Your task to perform on an android device: clear all cookies in the chrome app Image 0: 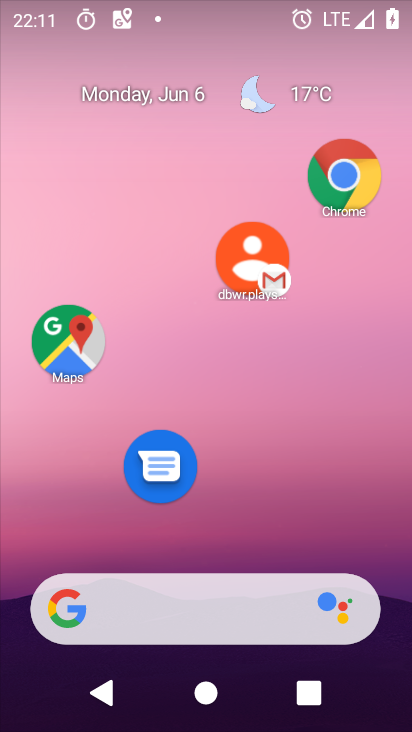
Step 0: click (217, 29)
Your task to perform on an android device: clear all cookies in the chrome app Image 1: 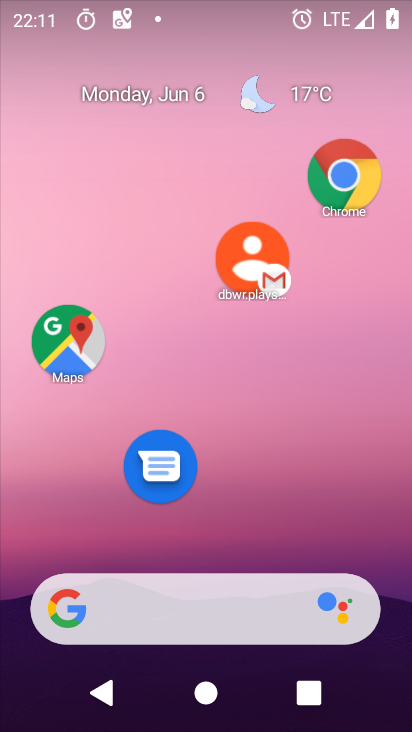
Step 1: drag from (203, 410) to (385, 41)
Your task to perform on an android device: clear all cookies in the chrome app Image 2: 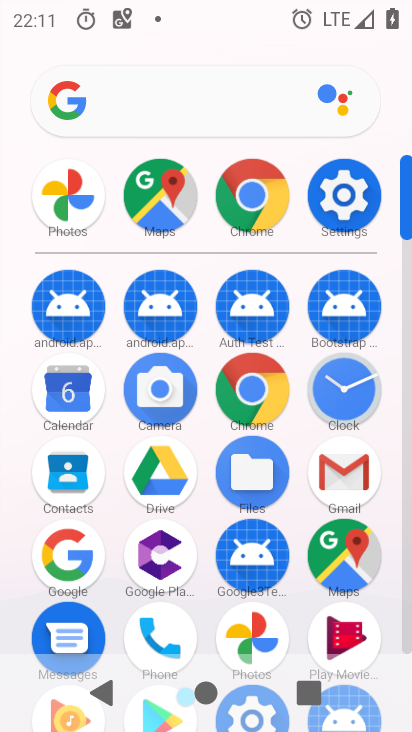
Step 2: click (240, 375)
Your task to perform on an android device: clear all cookies in the chrome app Image 3: 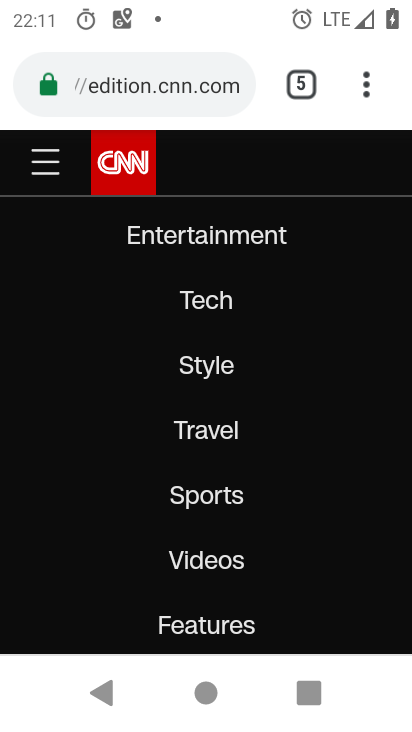
Step 3: drag from (236, 545) to (307, 162)
Your task to perform on an android device: clear all cookies in the chrome app Image 4: 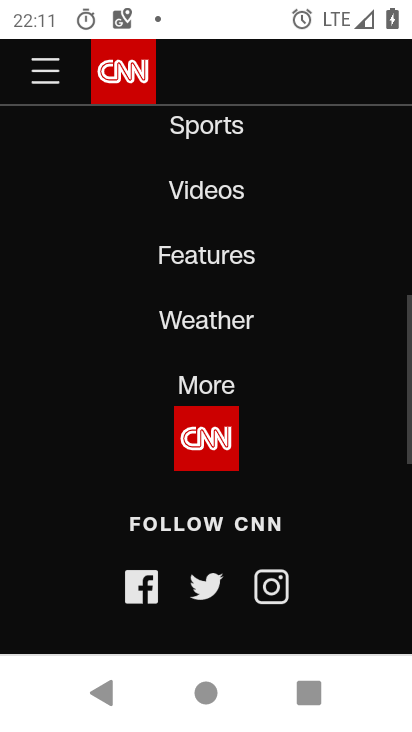
Step 4: drag from (289, 212) to (396, 431)
Your task to perform on an android device: clear all cookies in the chrome app Image 5: 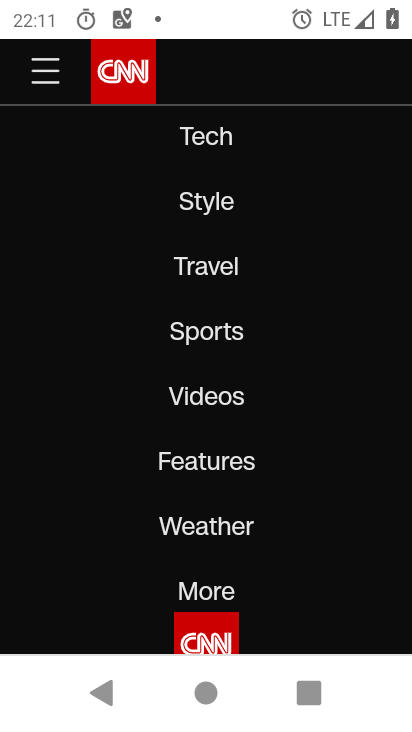
Step 5: drag from (323, 107) to (296, 451)
Your task to perform on an android device: clear all cookies in the chrome app Image 6: 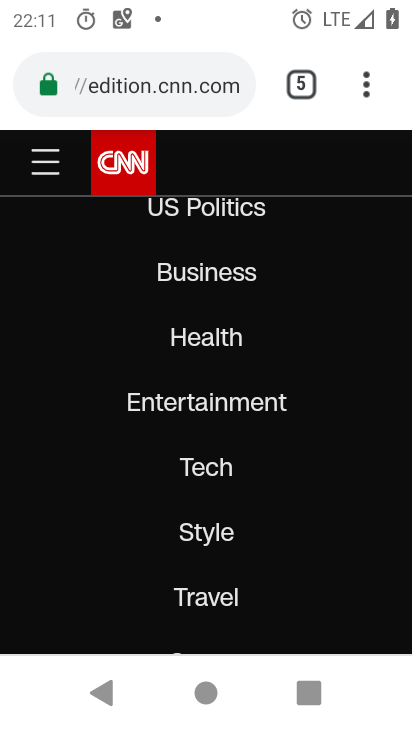
Step 6: drag from (370, 96) to (117, 513)
Your task to perform on an android device: clear all cookies in the chrome app Image 7: 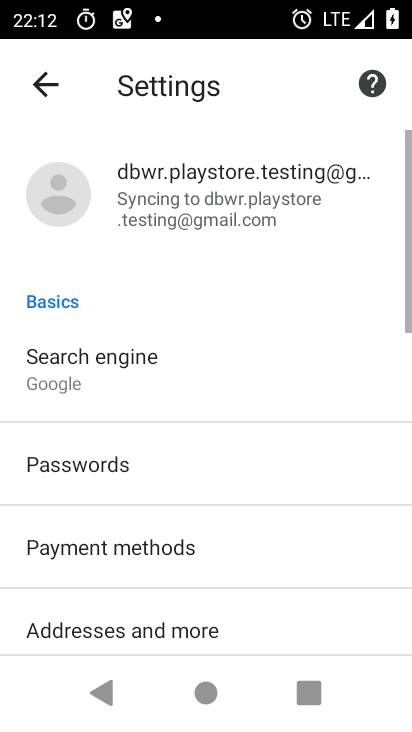
Step 7: drag from (119, 544) to (207, 140)
Your task to perform on an android device: clear all cookies in the chrome app Image 8: 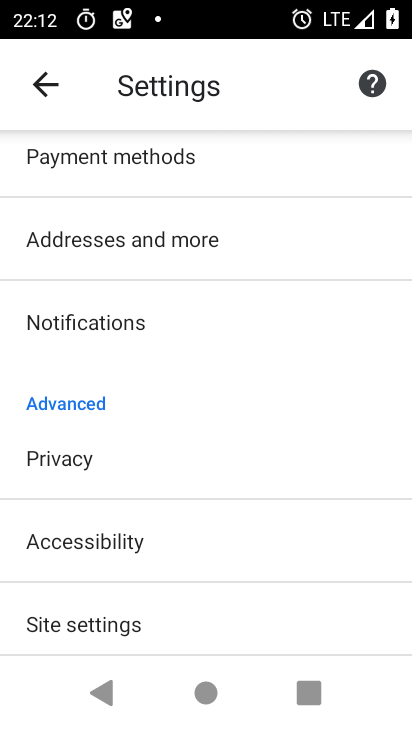
Step 8: drag from (163, 599) to (175, 180)
Your task to perform on an android device: clear all cookies in the chrome app Image 9: 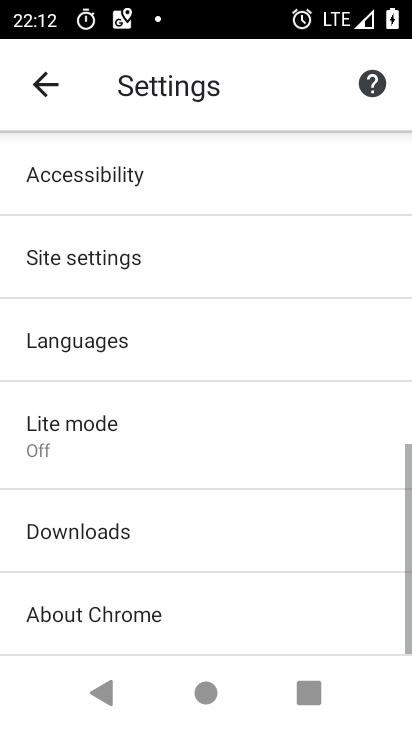
Step 9: drag from (106, 409) to (206, 700)
Your task to perform on an android device: clear all cookies in the chrome app Image 10: 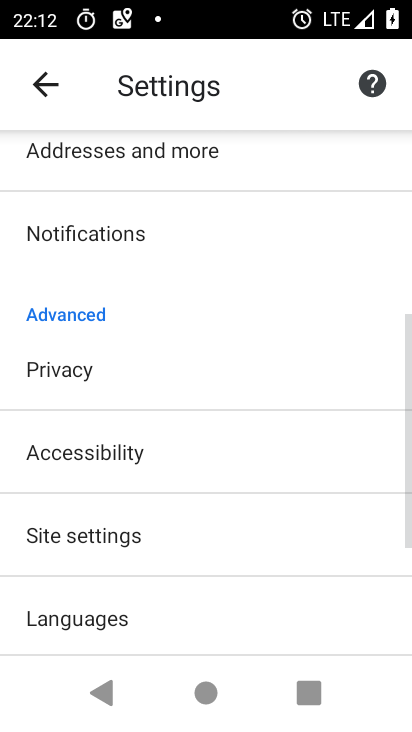
Step 10: click (39, 86)
Your task to perform on an android device: clear all cookies in the chrome app Image 11: 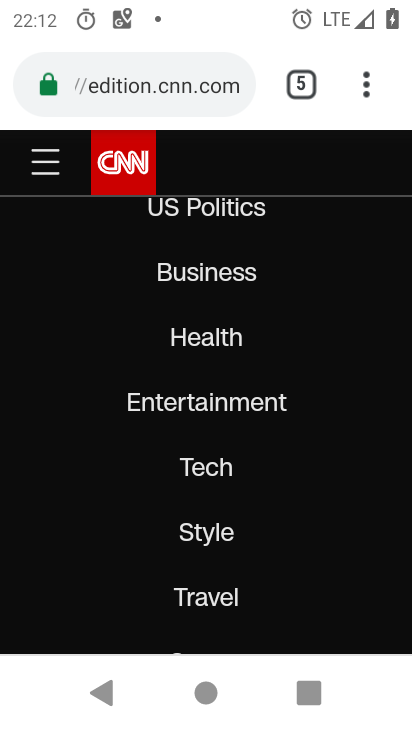
Step 11: drag from (236, 554) to (243, 281)
Your task to perform on an android device: clear all cookies in the chrome app Image 12: 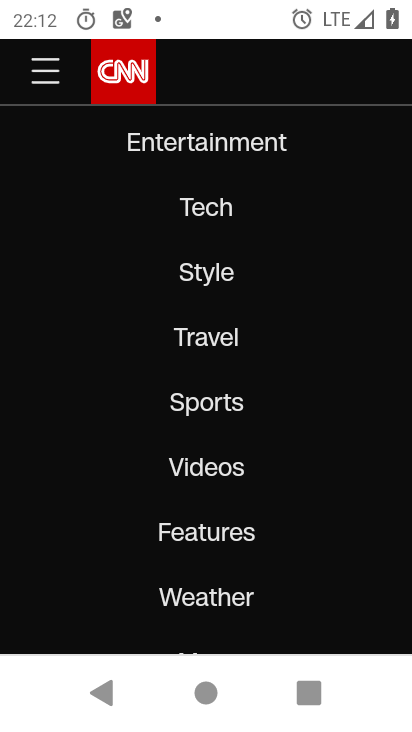
Step 12: drag from (251, 117) to (376, 659)
Your task to perform on an android device: clear all cookies in the chrome app Image 13: 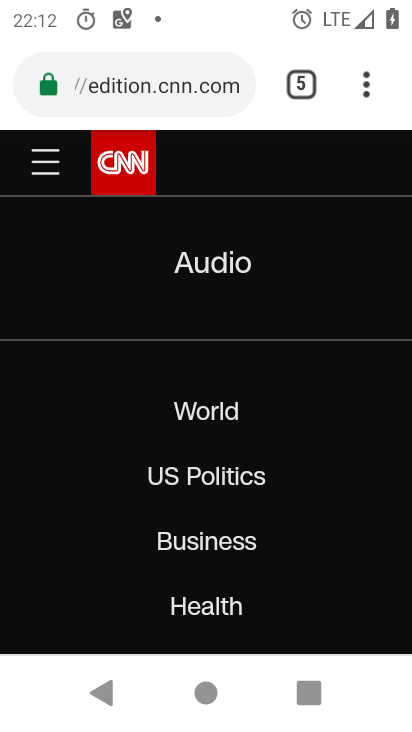
Step 13: click (382, 97)
Your task to perform on an android device: clear all cookies in the chrome app Image 14: 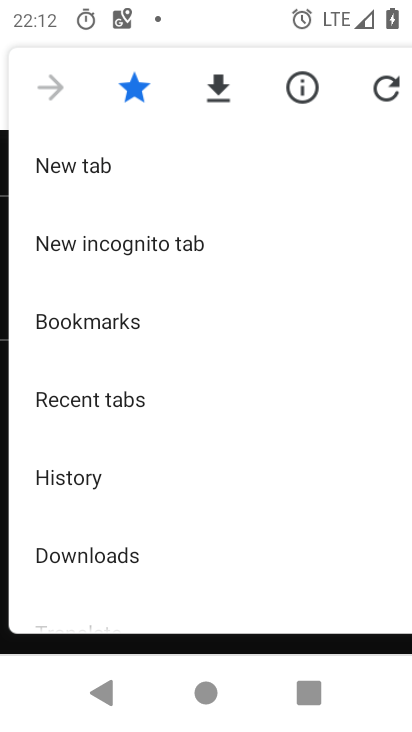
Step 14: click (154, 473)
Your task to perform on an android device: clear all cookies in the chrome app Image 15: 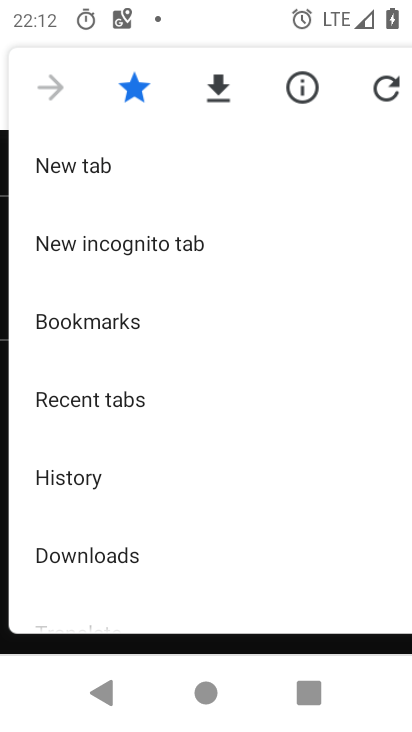
Step 15: click (76, 471)
Your task to perform on an android device: clear all cookies in the chrome app Image 16: 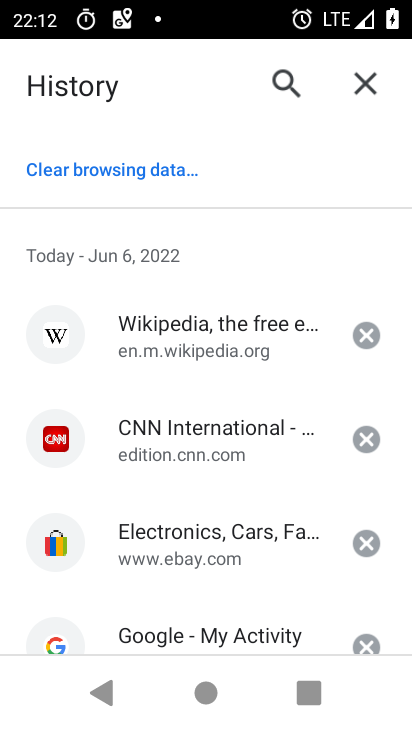
Step 16: click (86, 180)
Your task to perform on an android device: clear all cookies in the chrome app Image 17: 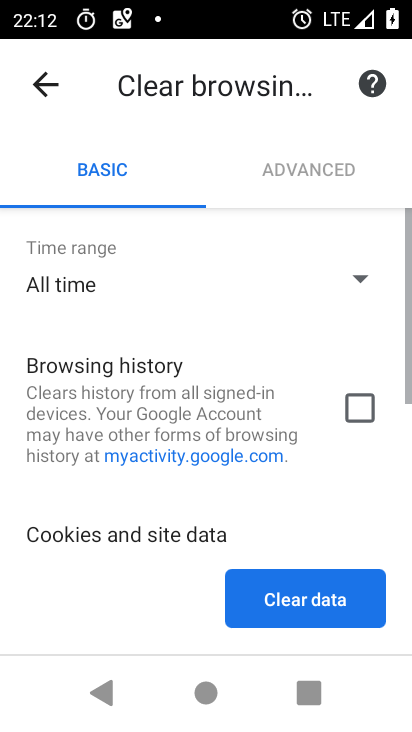
Step 17: drag from (266, 448) to (326, 148)
Your task to perform on an android device: clear all cookies in the chrome app Image 18: 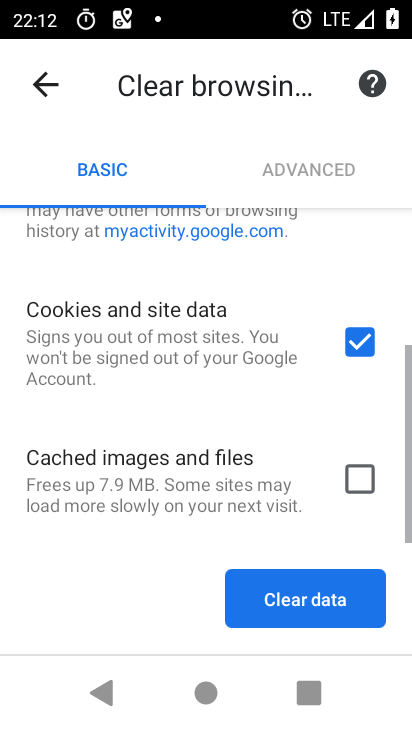
Step 18: click (331, 608)
Your task to perform on an android device: clear all cookies in the chrome app Image 19: 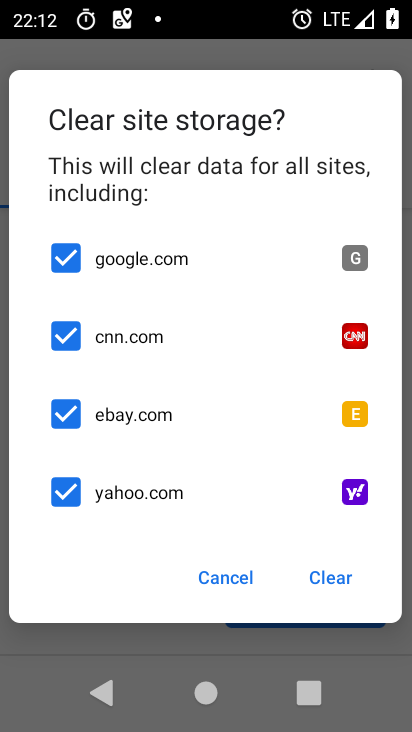
Step 19: click (327, 560)
Your task to perform on an android device: clear all cookies in the chrome app Image 20: 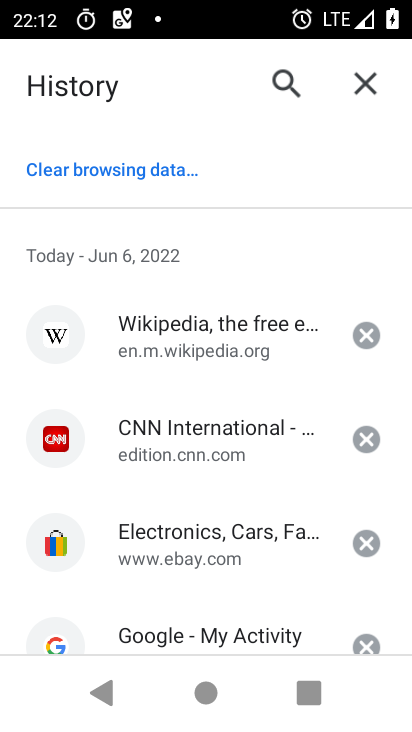
Step 20: task complete